Your task to perform on an android device: What's the news in French Guiana? Image 0: 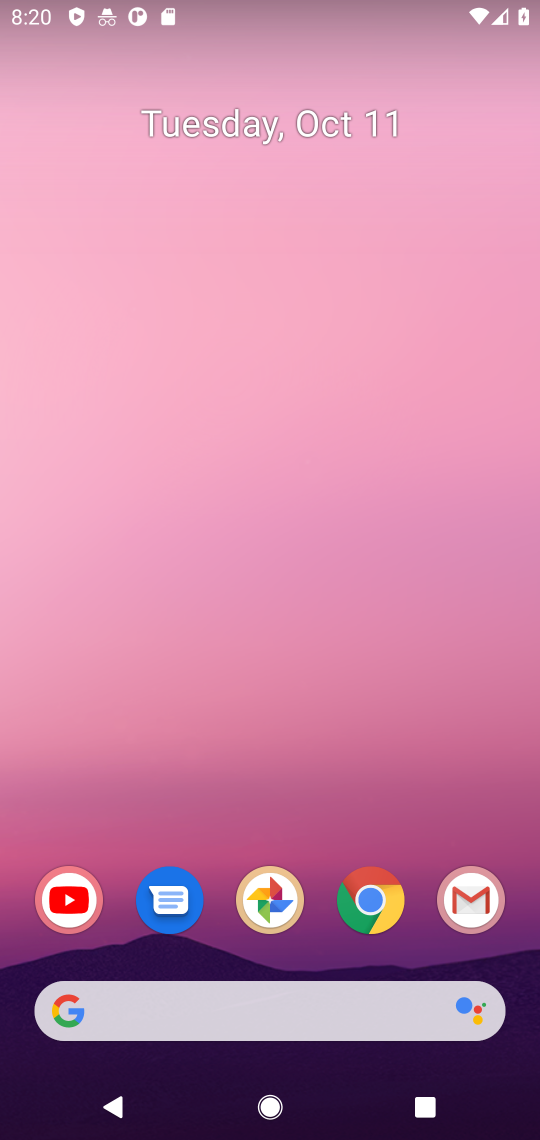
Step 0: click (382, 901)
Your task to perform on an android device: What's the news in French Guiana? Image 1: 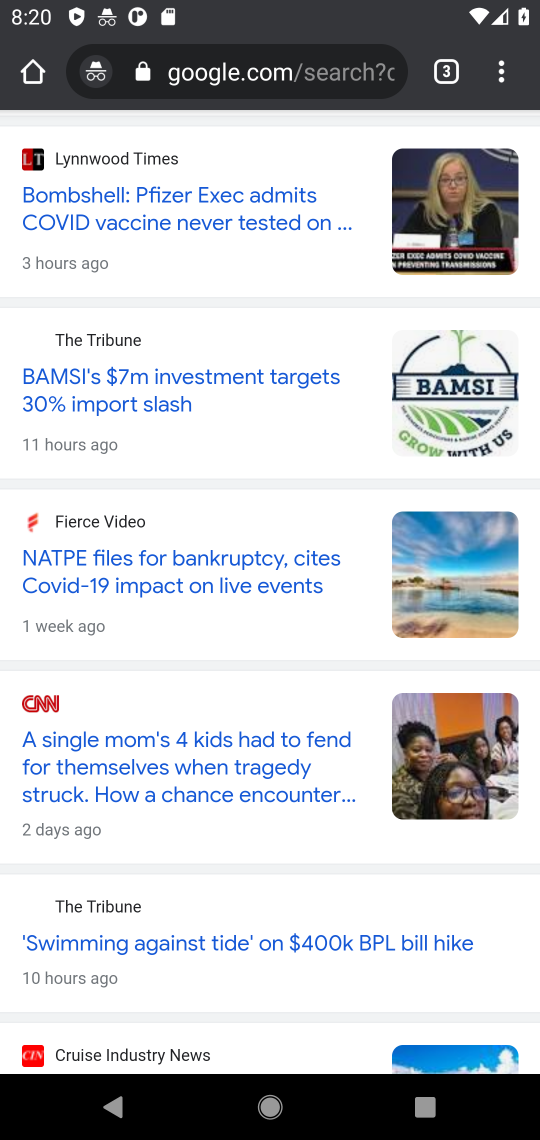
Step 1: click (276, 83)
Your task to perform on an android device: What's the news in French Guiana? Image 2: 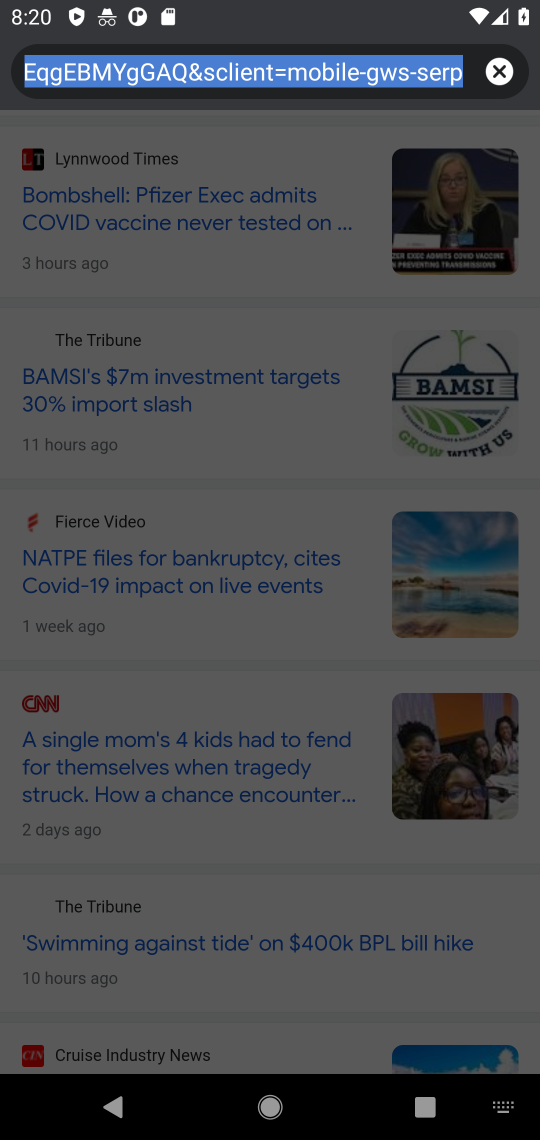
Step 2: type "news in French Guiana"
Your task to perform on an android device: What's the news in French Guiana? Image 3: 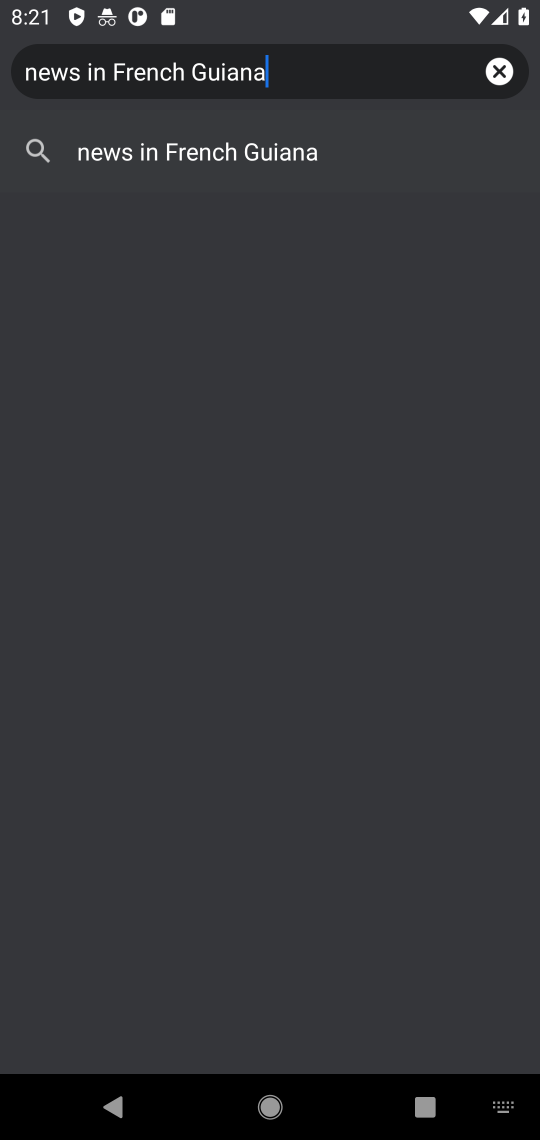
Step 3: press home button
Your task to perform on an android device: What's the news in French Guiana? Image 4: 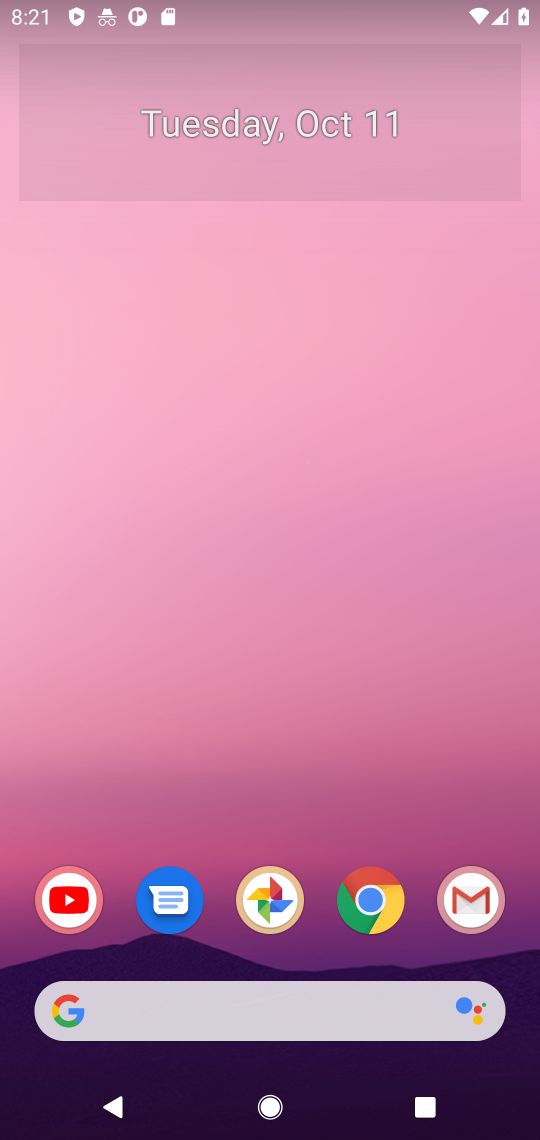
Step 4: click (376, 899)
Your task to perform on an android device: What's the news in French Guiana? Image 5: 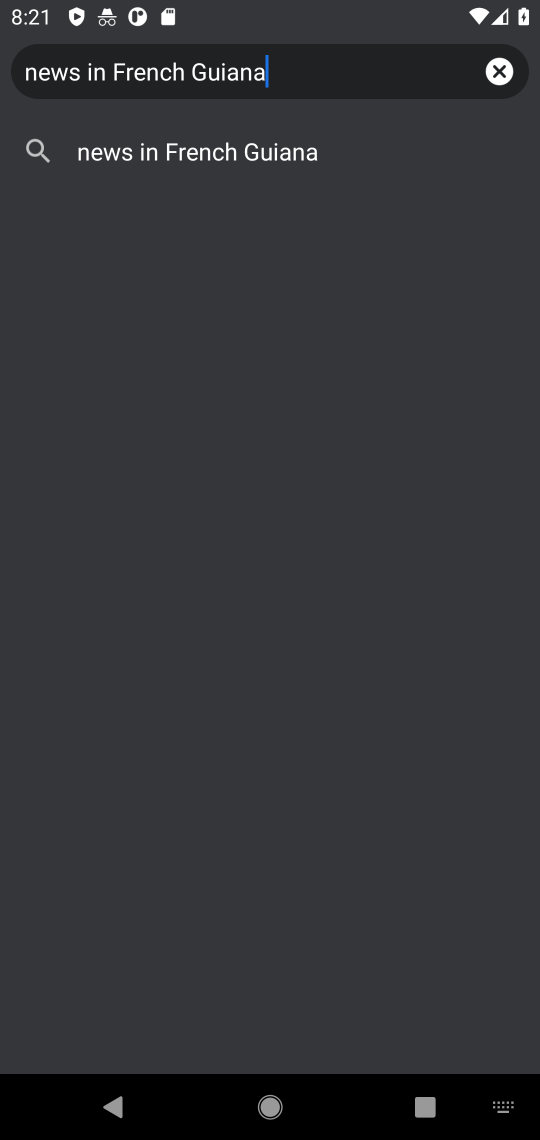
Step 5: press enter
Your task to perform on an android device: What's the news in French Guiana? Image 6: 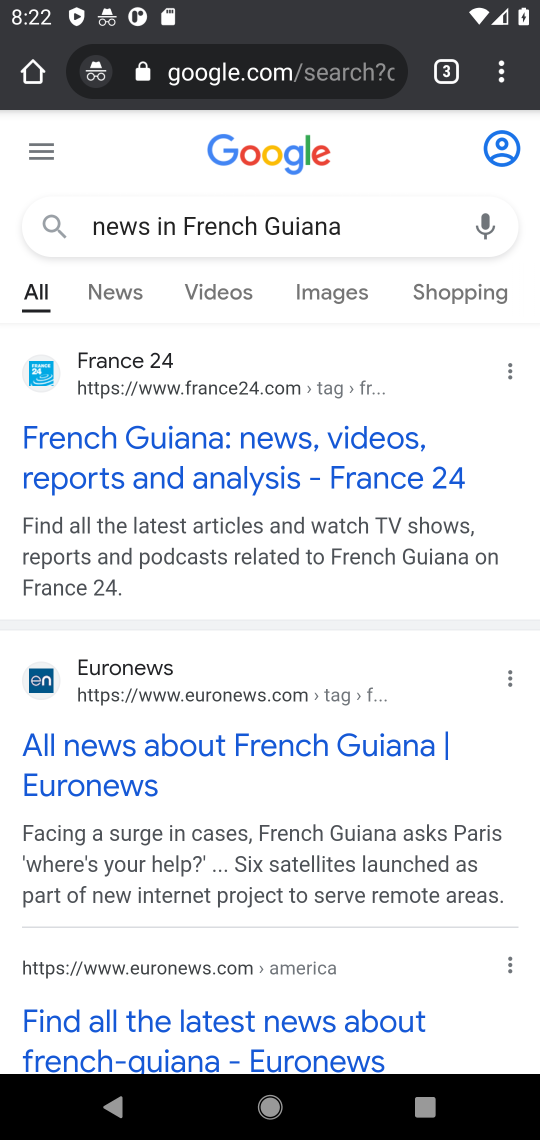
Step 6: click (132, 299)
Your task to perform on an android device: What's the news in French Guiana? Image 7: 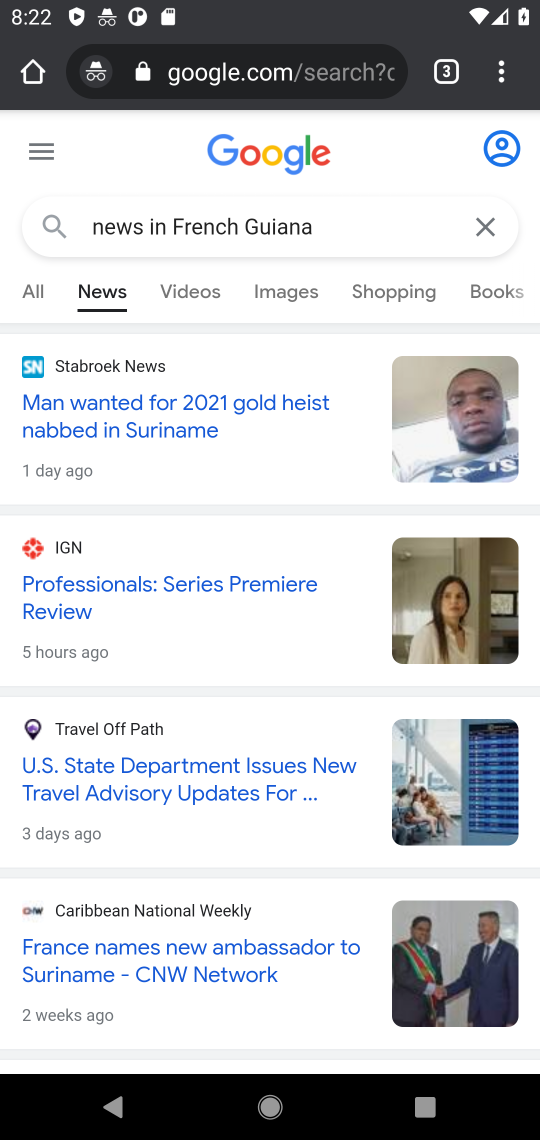
Step 7: task complete